Your task to perform on an android device: turn on notifications settings in the gmail app Image 0: 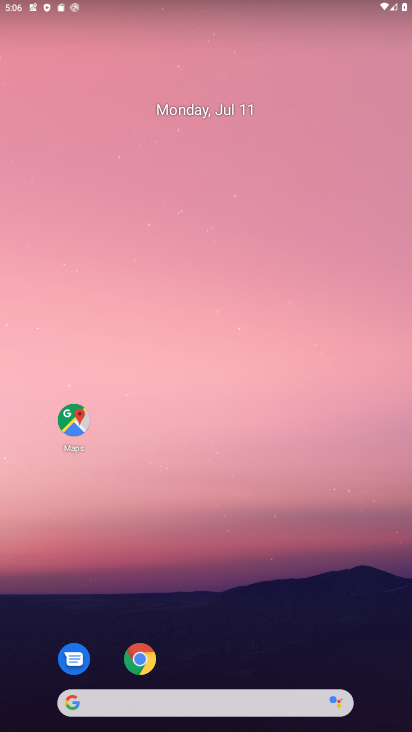
Step 0: drag from (337, 641) to (312, 160)
Your task to perform on an android device: turn on notifications settings in the gmail app Image 1: 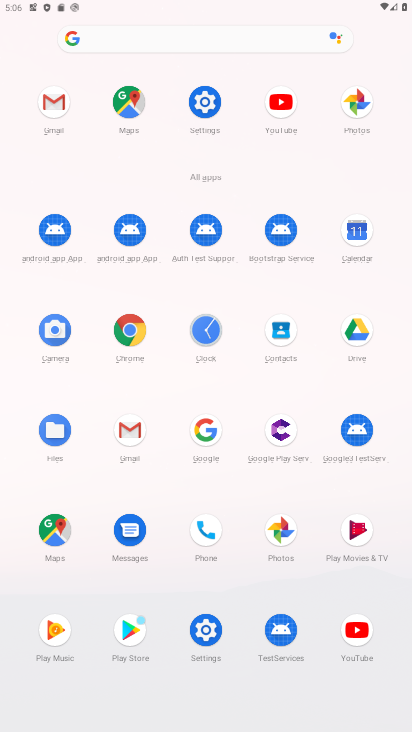
Step 1: click (129, 430)
Your task to perform on an android device: turn on notifications settings in the gmail app Image 2: 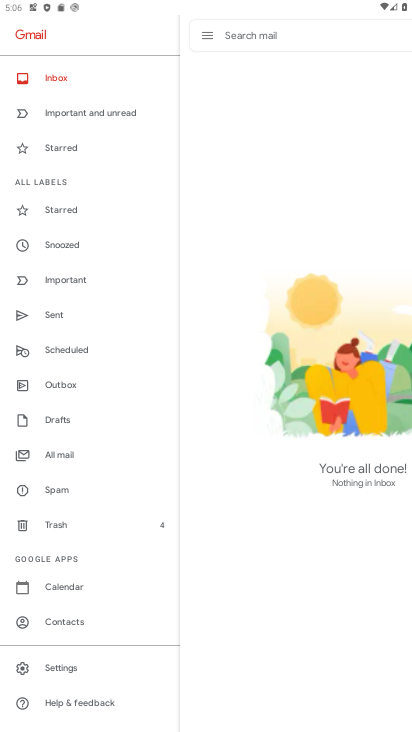
Step 2: click (51, 663)
Your task to perform on an android device: turn on notifications settings in the gmail app Image 3: 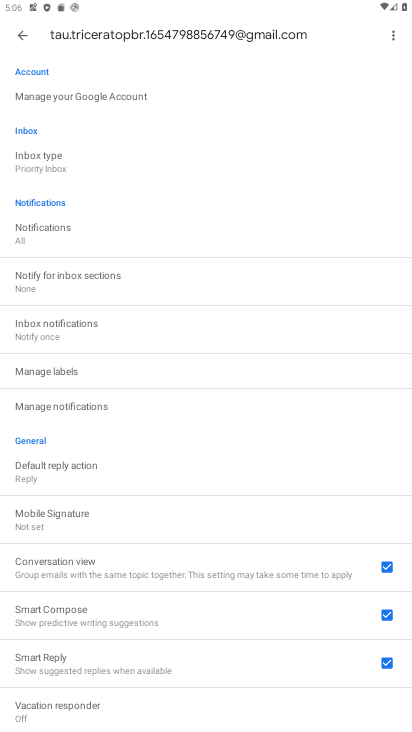
Step 3: click (68, 409)
Your task to perform on an android device: turn on notifications settings in the gmail app Image 4: 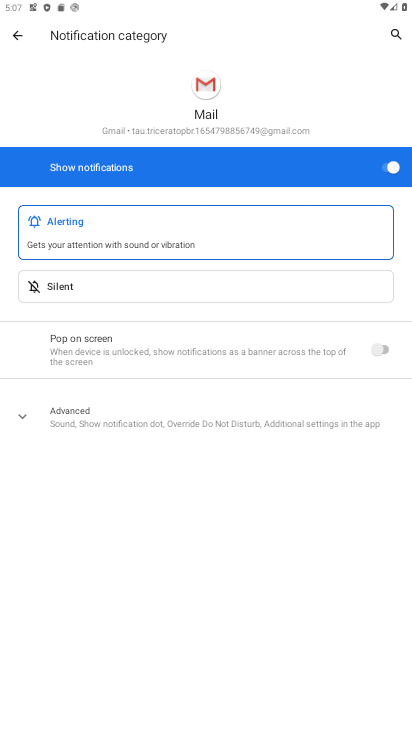
Step 4: task complete